Your task to perform on an android device: star an email in the gmail app Image 0: 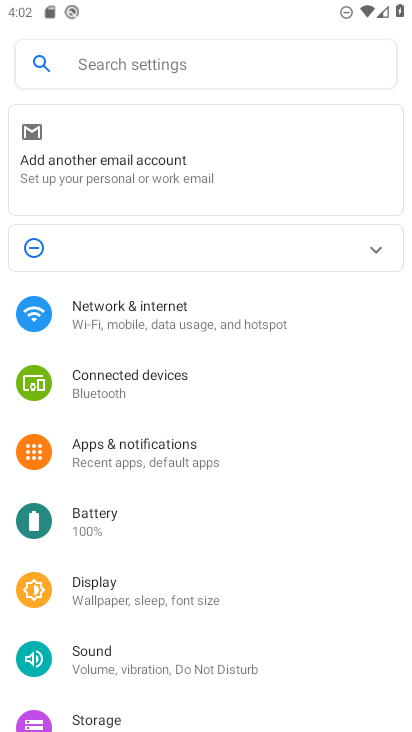
Step 0: drag from (165, 477) to (186, 246)
Your task to perform on an android device: star an email in the gmail app Image 1: 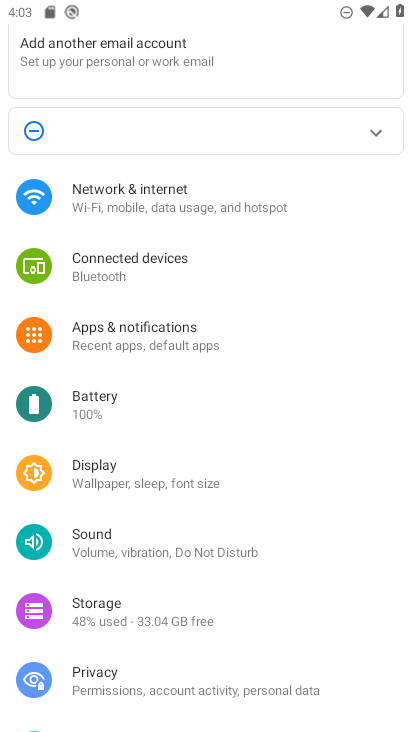
Step 1: press home button
Your task to perform on an android device: star an email in the gmail app Image 2: 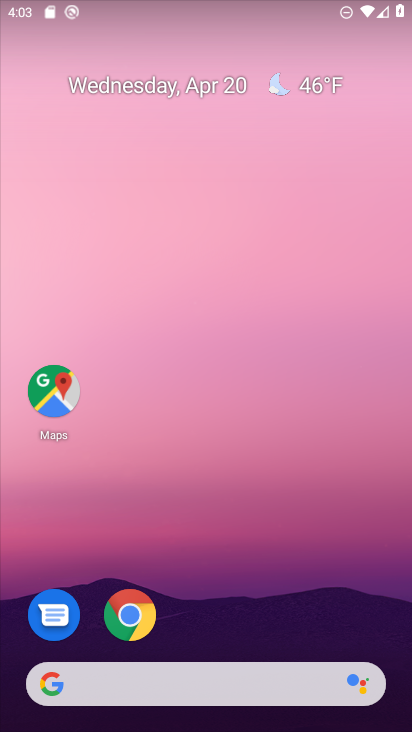
Step 2: drag from (220, 494) to (277, 79)
Your task to perform on an android device: star an email in the gmail app Image 3: 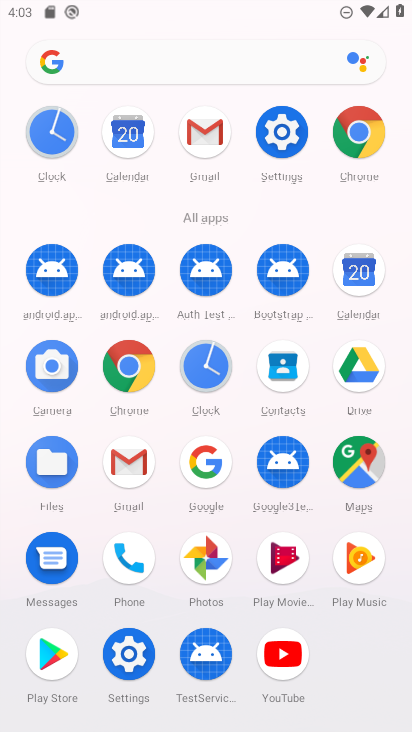
Step 3: click (229, 138)
Your task to perform on an android device: star an email in the gmail app Image 4: 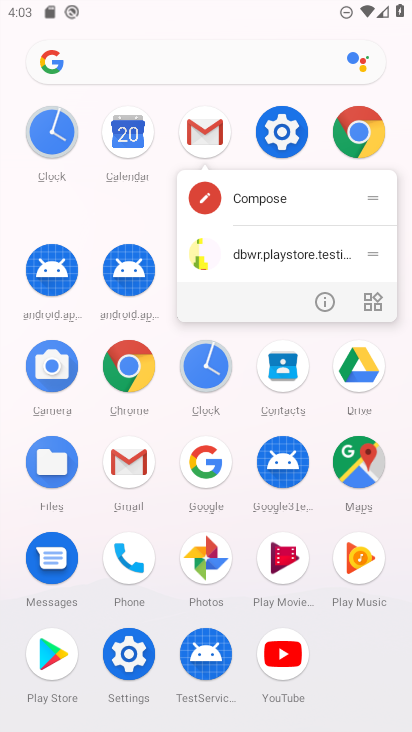
Step 4: click (182, 129)
Your task to perform on an android device: star an email in the gmail app Image 5: 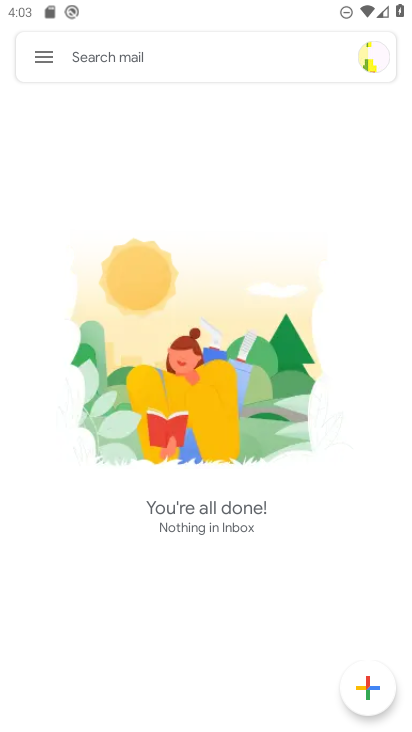
Step 5: task complete